Your task to perform on an android device: check battery use Image 0: 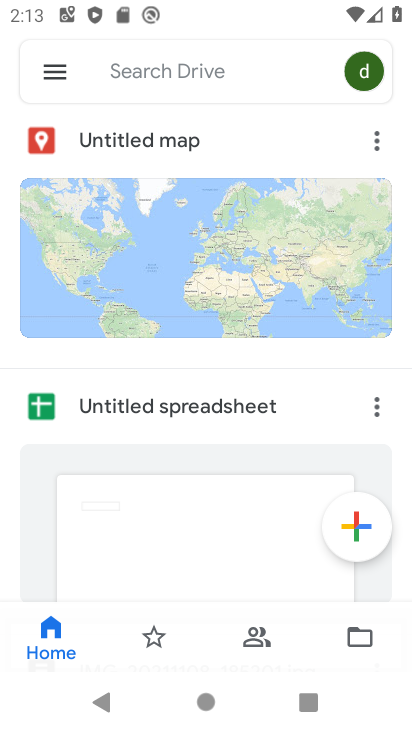
Step 0: press home button
Your task to perform on an android device: check battery use Image 1: 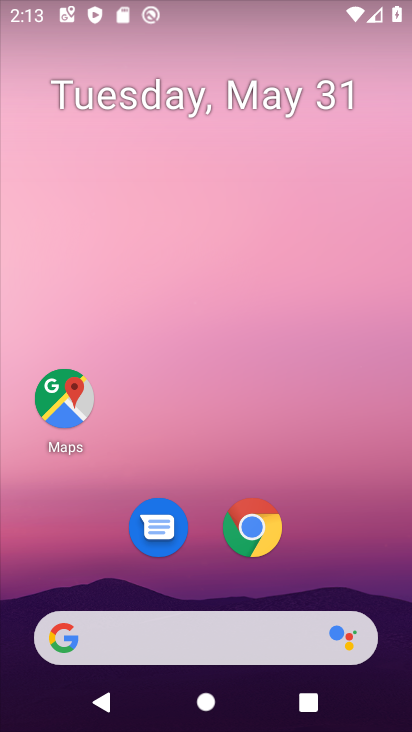
Step 1: drag from (350, 502) to (250, 12)
Your task to perform on an android device: check battery use Image 2: 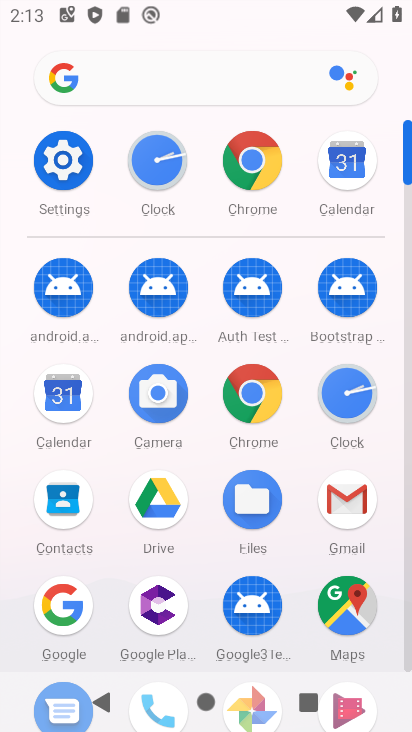
Step 2: click (70, 164)
Your task to perform on an android device: check battery use Image 3: 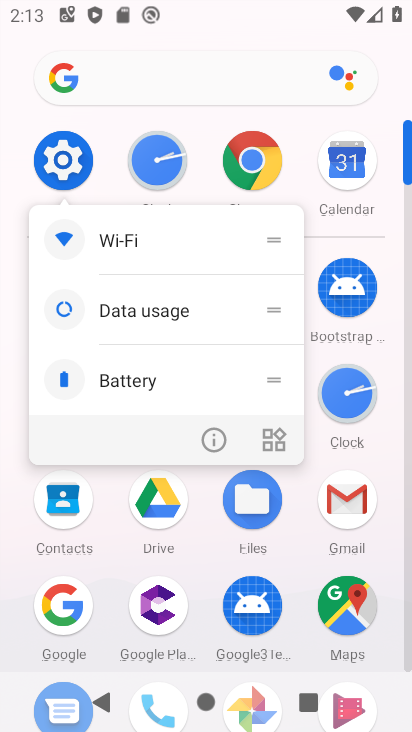
Step 3: click (66, 149)
Your task to perform on an android device: check battery use Image 4: 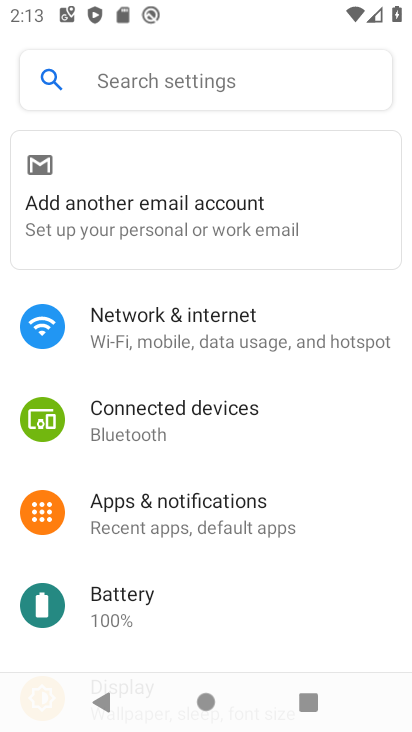
Step 4: drag from (212, 552) to (230, 240)
Your task to perform on an android device: check battery use Image 5: 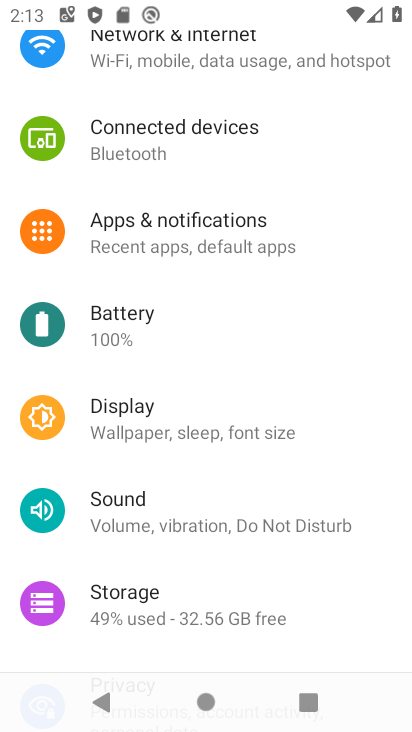
Step 5: click (115, 338)
Your task to perform on an android device: check battery use Image 6: 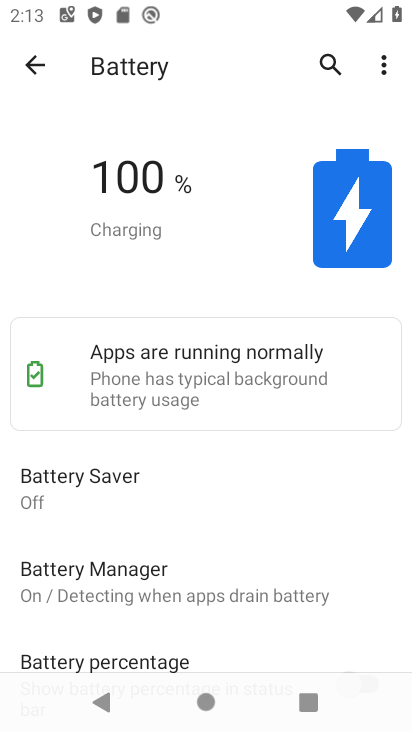
Step 6: task complete